Your task to perform on an android device: turn off improve location accuracy Image 0: 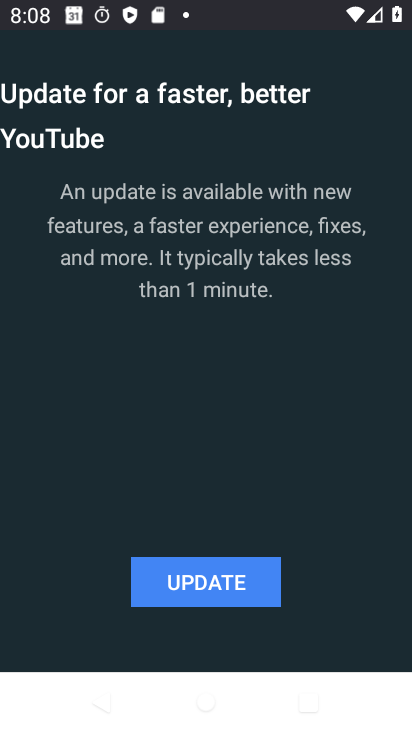
Step 0: click (328, 420)
Your task to perform on an android device: turn off improve location accuracy Image 1: 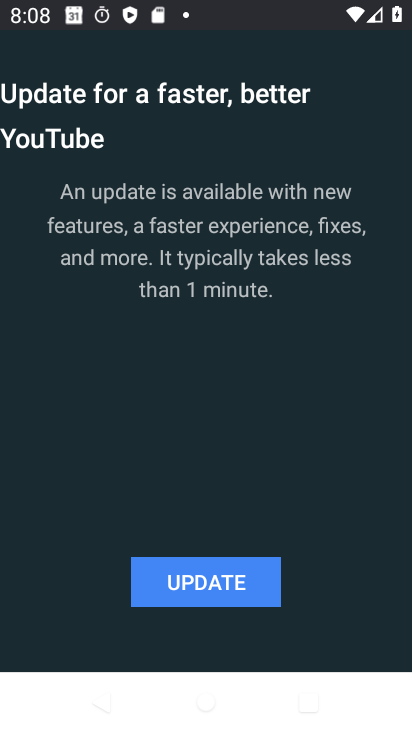
Step 1: press back button
Your task to perform on an android device: turn off improve location accuracy Image 2: 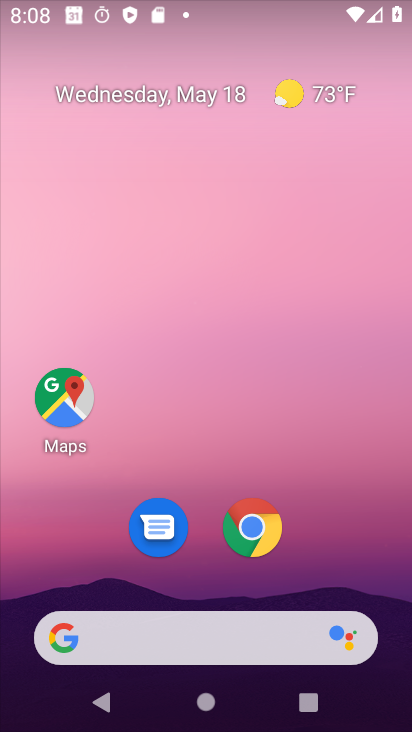
Step 2: drag from (400, 702) to (404, 381)
Your task to perform on an android device: turn off improve location accuracy Image 3: 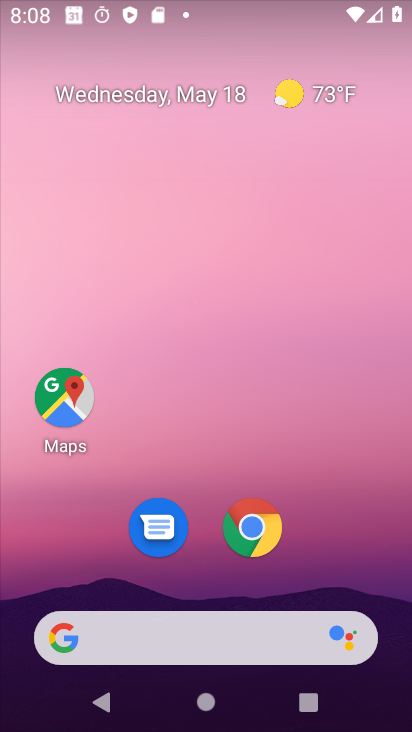
Step 3: drag from (392, 688) to (367, 35)
Your task to perform on an android device: turn off improve location accuracy Image 4: 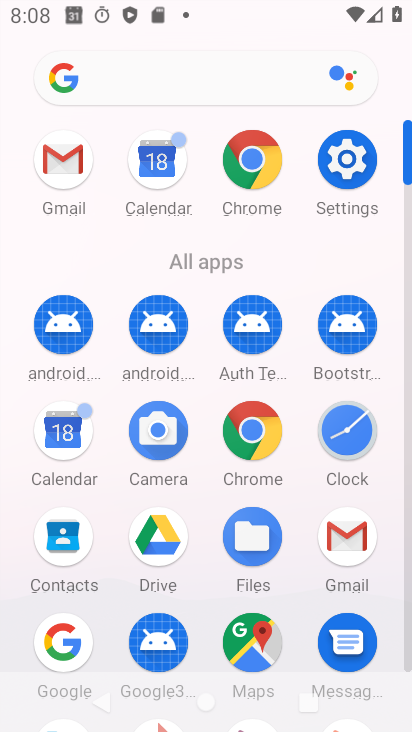
Step 4: click (329, 196)
Your task to perform on an android device: turn off improve location accuracy Image 5: 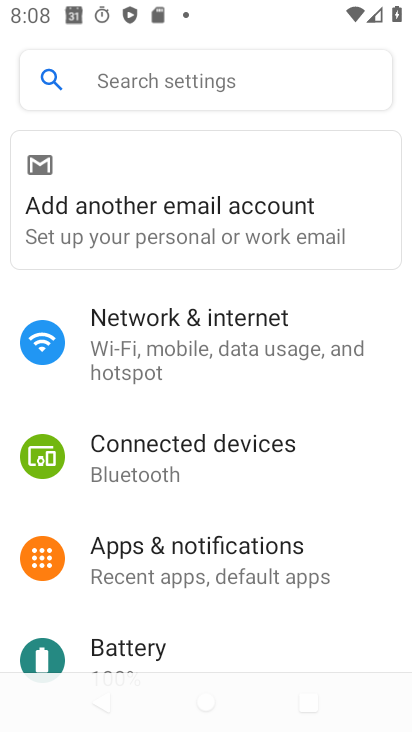
Step 5: drag from (379, 643) to (308, 2)
Your task to perform on an android device: turn off improve location accuracy Image 6: 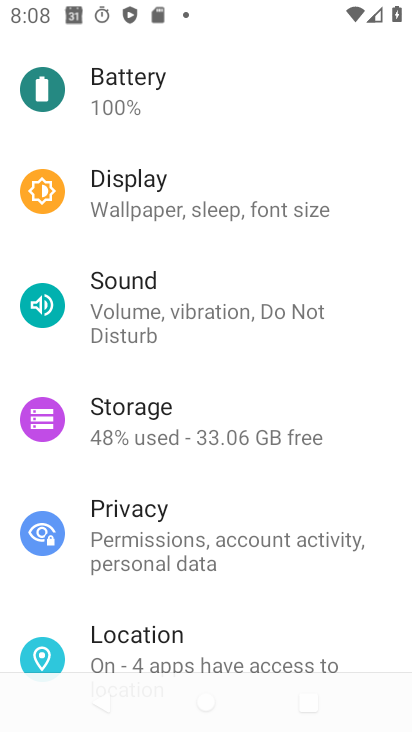
Step 6: click (99, 645)
Your task to perform on an android device: turn off improve location accuracy Image 7: 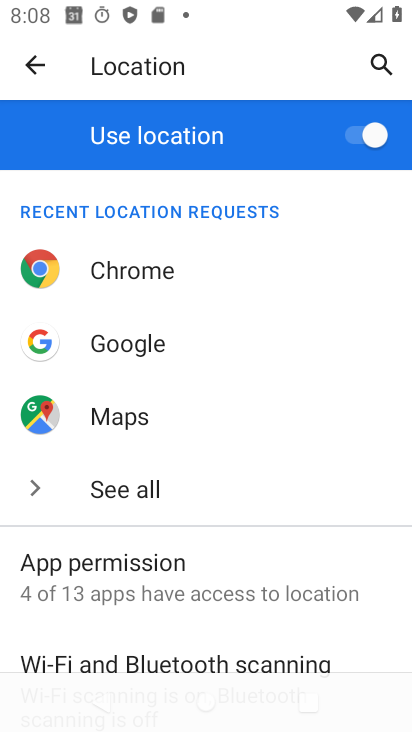
Step 7: drag from (357, 692) to (339, 155)
Your task to perform on an android device: turn off improve location accuracy Image 8: 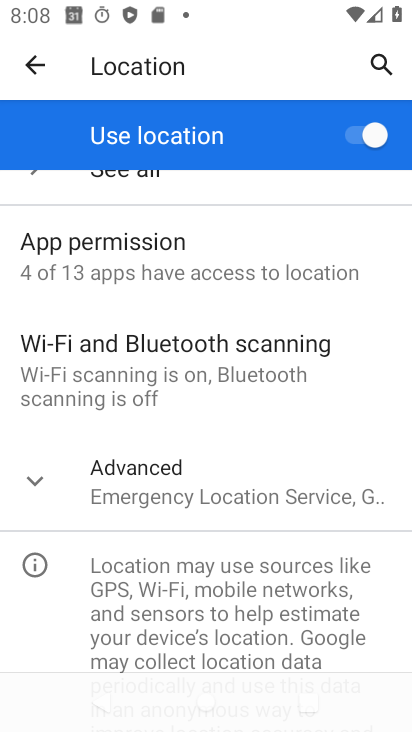
Step 8: click (37, 490)
Your task to perform on an android device: turn off improve location accuracy Image 9: 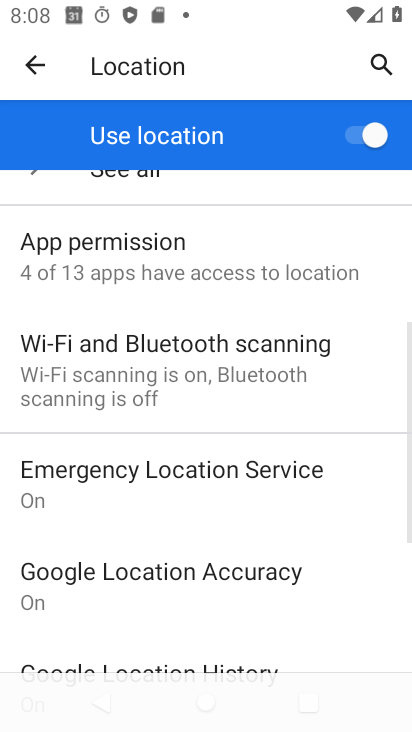
Step 9: drag from (360, 631) to (325, 189)
Your task to perform on an android device: turn off improve location accuracy Image 10: 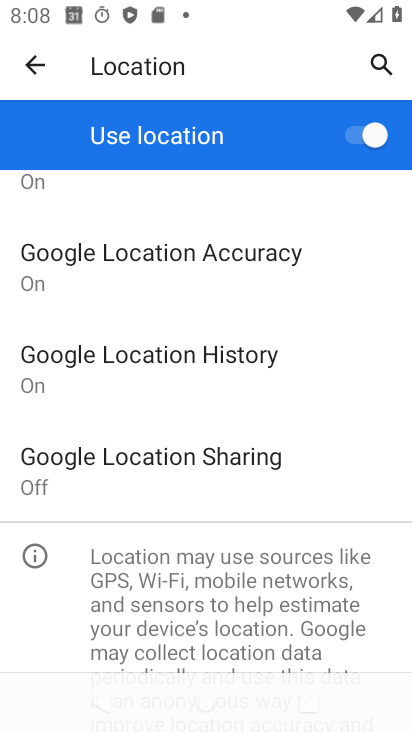
Step 10: click (89, 259)
Your task to perform on an android device: turn off improve location accuracy Image 11: 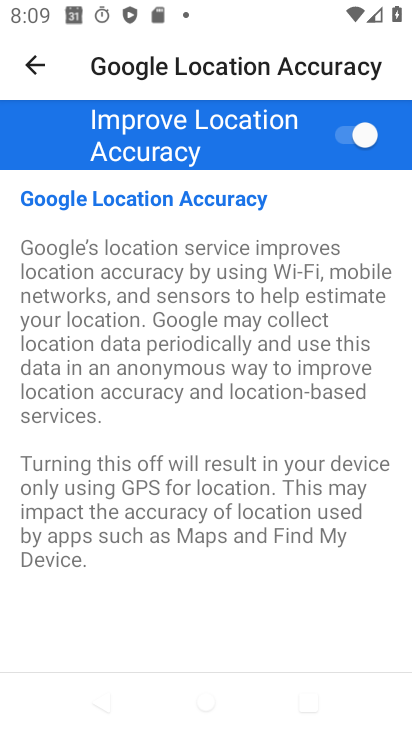
Step 11: click (352, 133)
Your task to perform on an android device: turn off improve location accuracy Image 12: 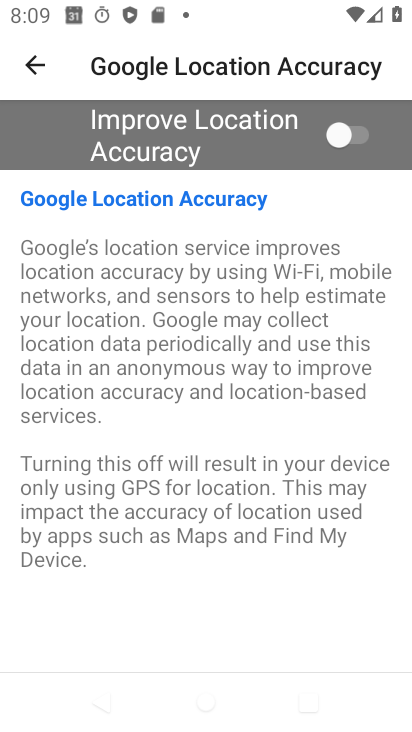
Step 12: task complete